Your task to perform on an android device: Open ESPN.com Image 0: 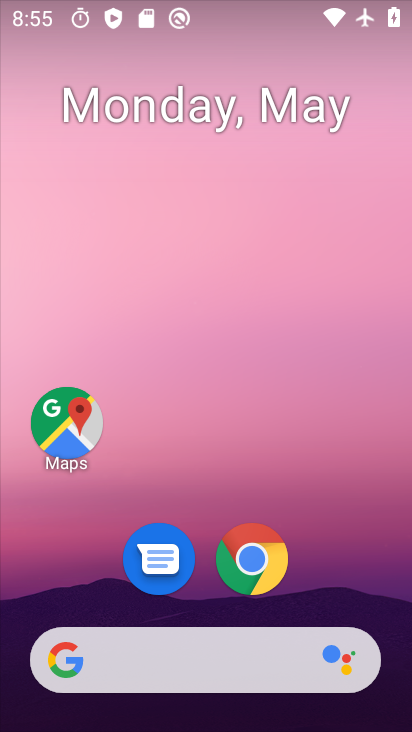
Step 0: click (258, 556)
Your task to perform on an android device: Open ESPN.com Image 1: 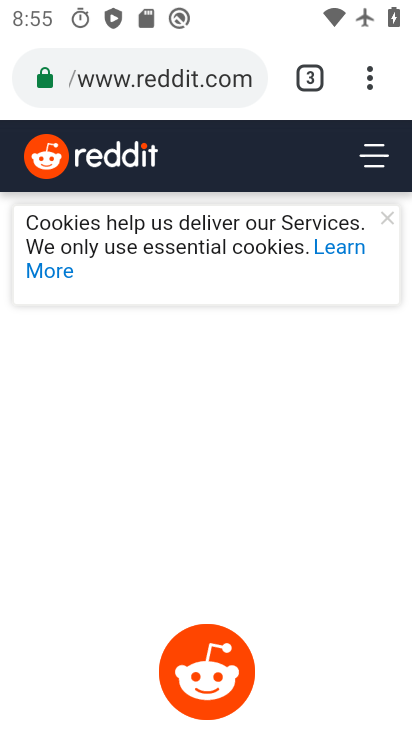
Step 1: click (184, 76)
Your task to perform on an android device: Open ESPN.com Image 2: 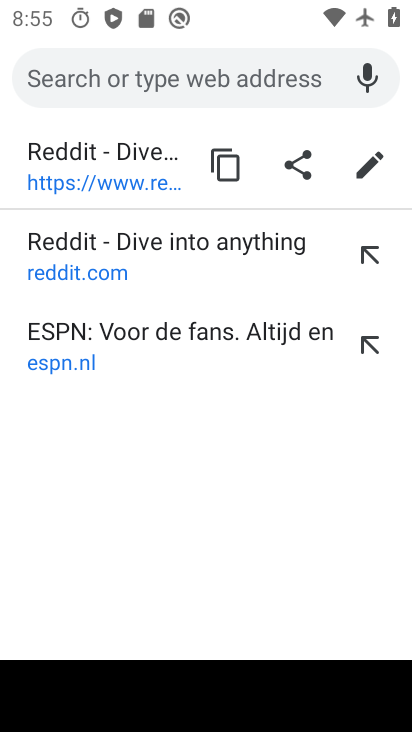
Step 2: type "espn.com"
Your task to perform on an android device: Open ESPN.com Image 3: 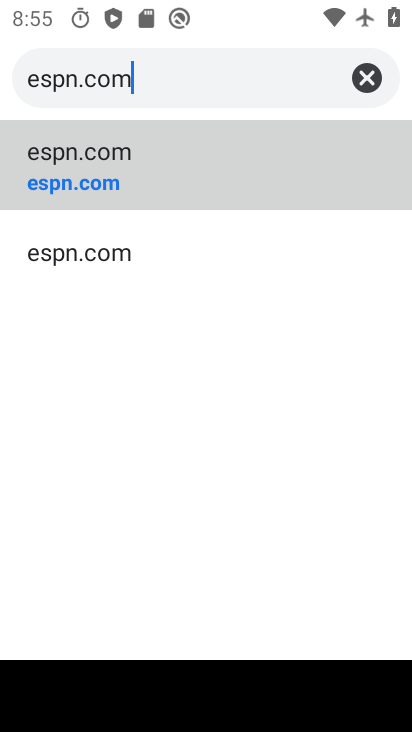
Step 3: click (67, 151)
Your task to perform on an android device: Open ESPN.com Image 4: 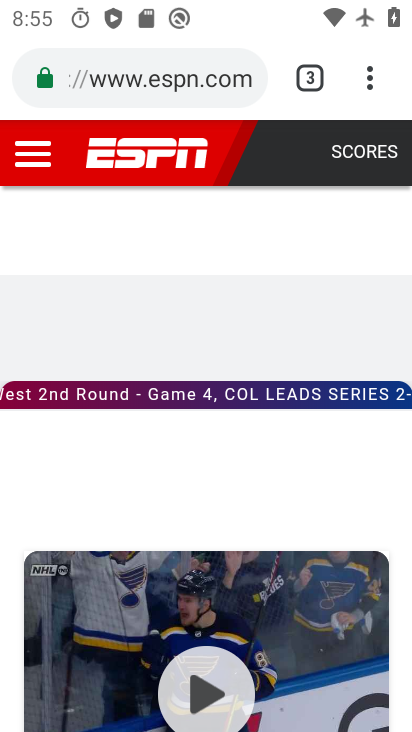
Step 4: task complete